Your task to perform on an android device: toggle location history Image 0: 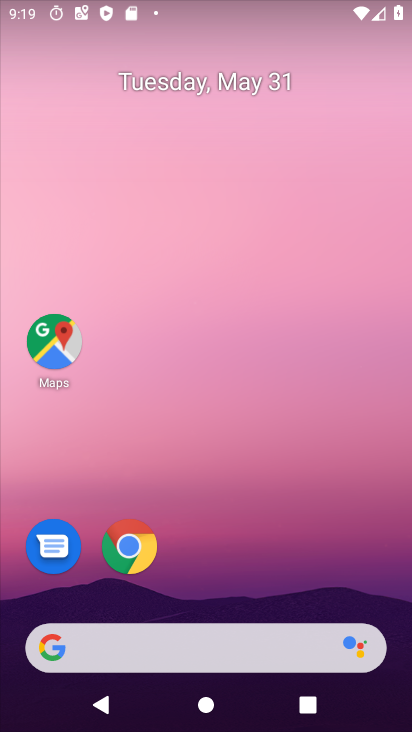
Step 0: drag from (288, 573) to (316, 154)
Your task to perform on an android device: toggle location history Image 1: 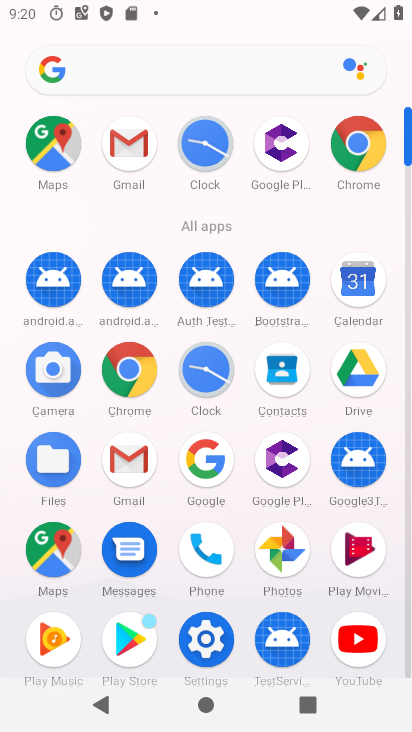
Step 1: click (207, 637)
Your task to perform on an android device: toggle location history Image 2: 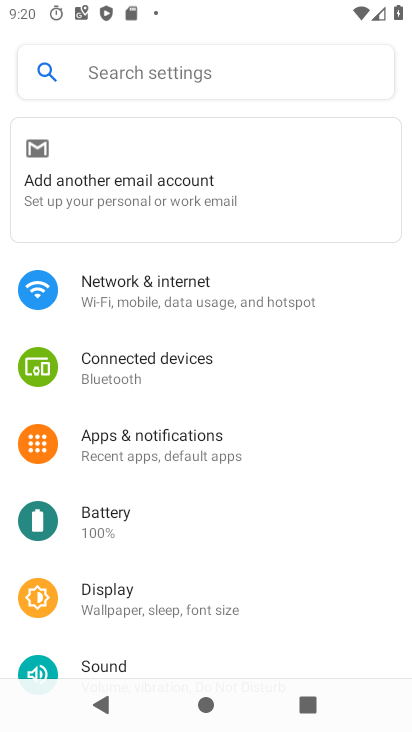
Step 2: drag from (207, 637) to (207, 152)
Your task to perform on an android device: toggle location history Image 3: 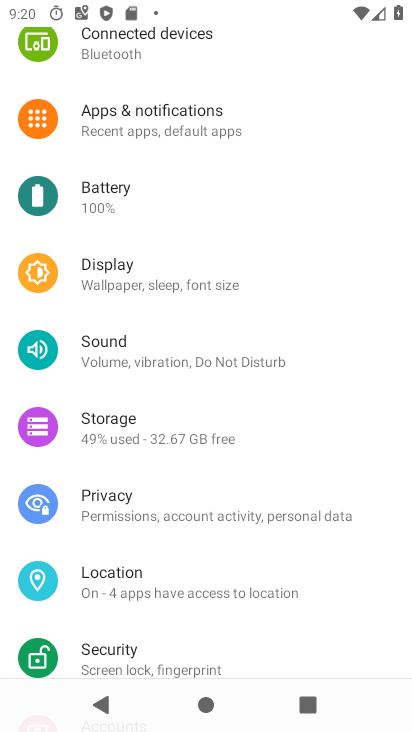
Step 3: click (165, 593)
Your task to perform on an android device: toggle location history Image 4: 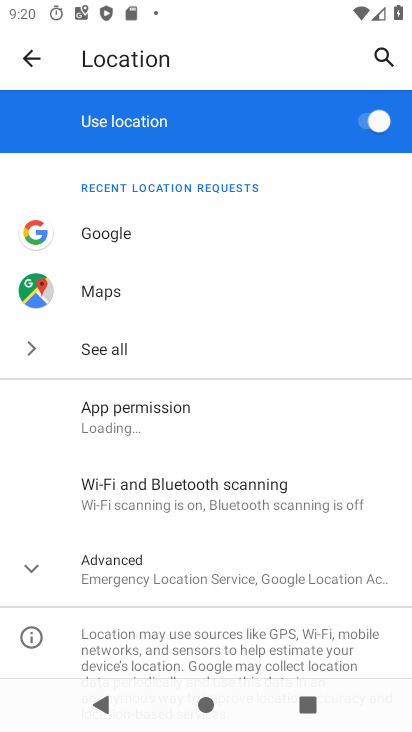
Step 4: click (184, 566)
Your task to perform on an android device: toggle location history Image 5: 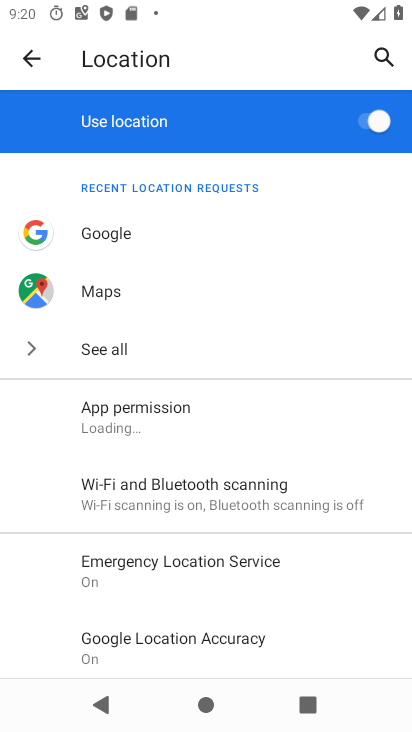
Step 5: drag from (201, 592) to (229, 239)
Your task to perform on an android device: toggle location history Image 6: 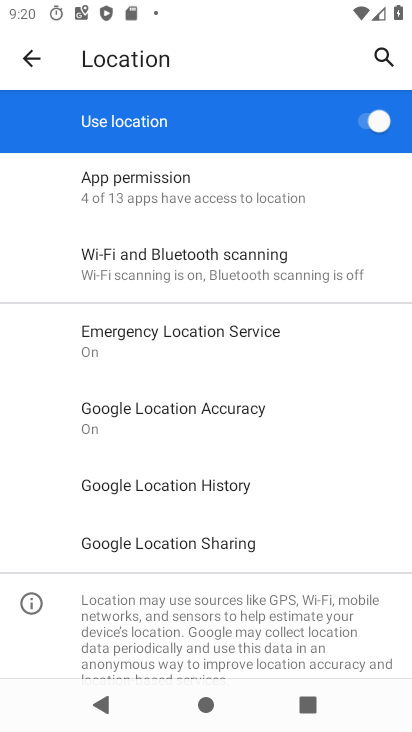
Step 6: click (183, 481)
Your task to perform on an android device: toggle location history Image 7: 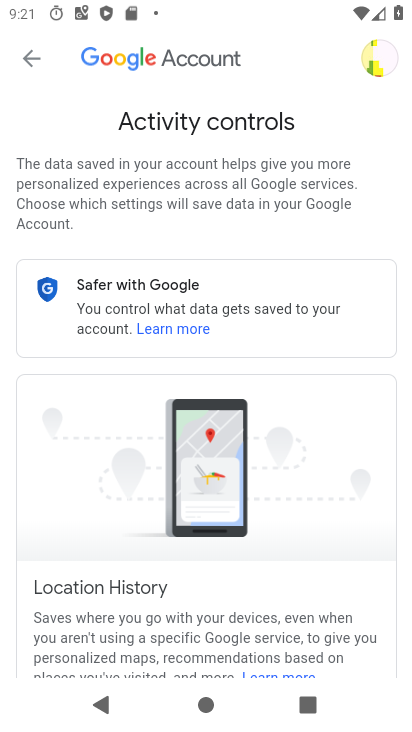
Step 7: drag from (239, 557) to (247, 178)
Your task to perform on an android device: toggle location history Image 8: 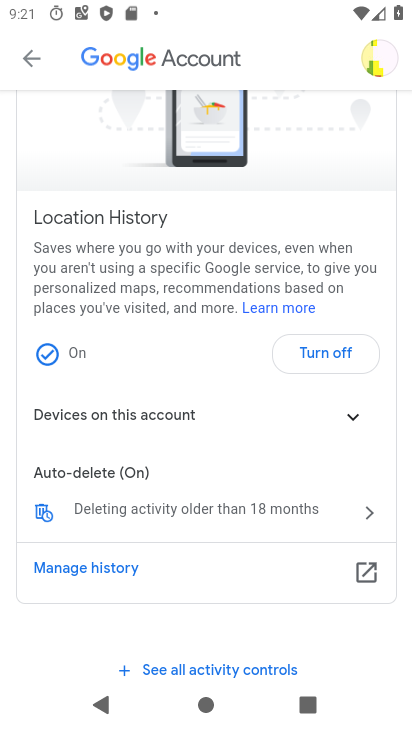
Step 8: click (326, 349)
Your task to perform on an android device: toggle location history Image 9: 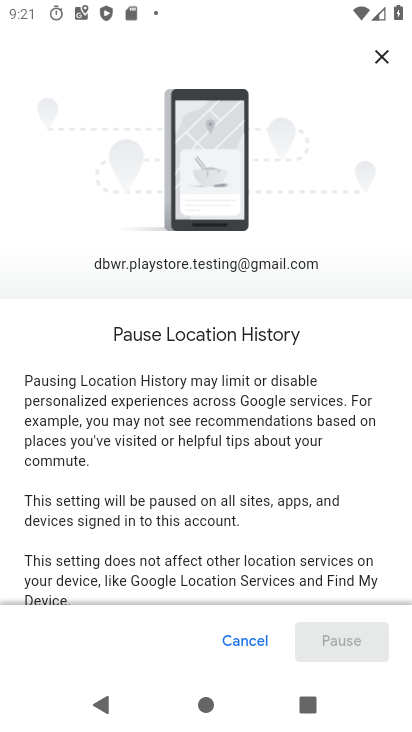
Step 9: drag from (324, 515) to (344, 125)
Your task to perform on an android device: toggle location history Image 10: 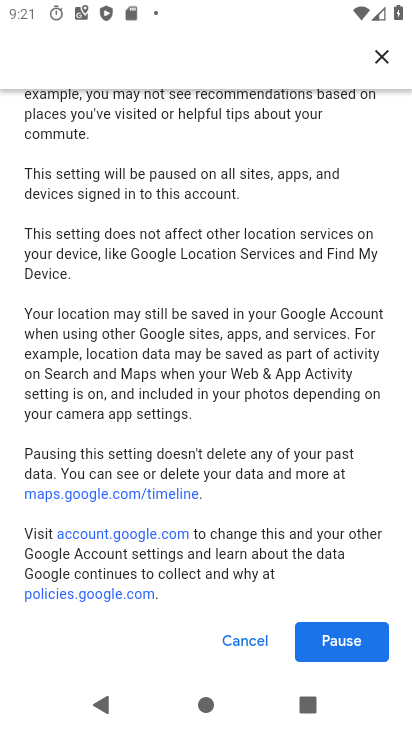
Step 10: click (336, 641)
Your task to perform on an android device: toggle location history Image 11: 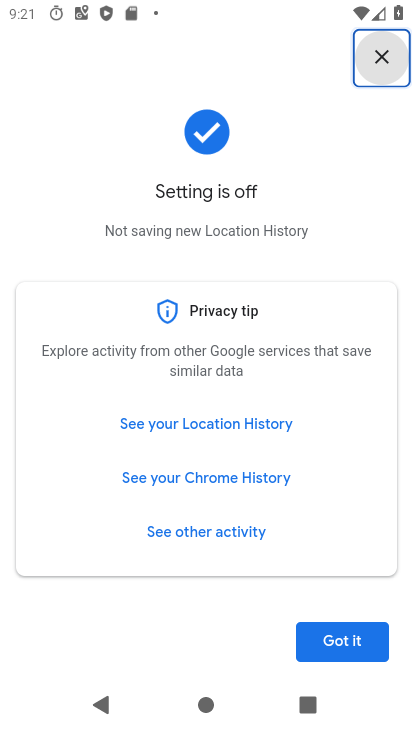
Step 11: click (336, 641)
Your task to perform on an android device: toggle location history Image 12: 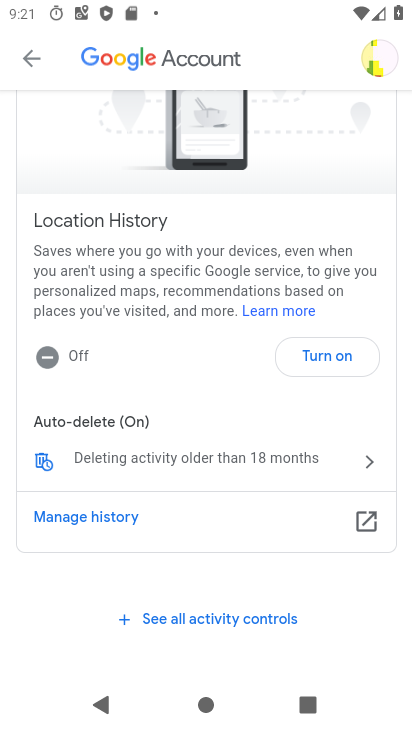
Step 12: task complete